Your task to perform on an android device: Go to display settings Image 0: 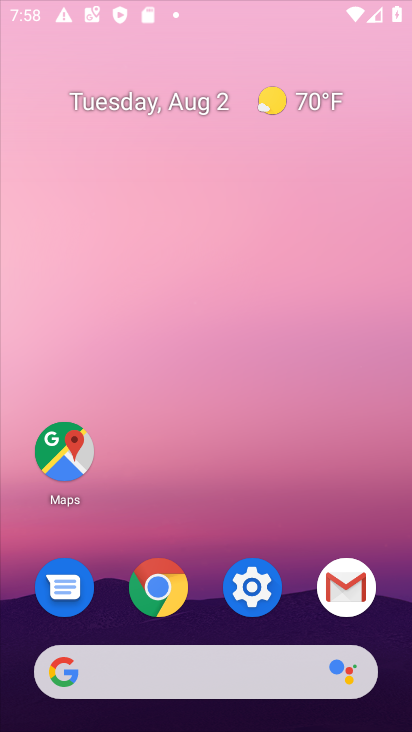
Step 0: press home button
Your task to perform on an android device: Go to display settings Image 1: 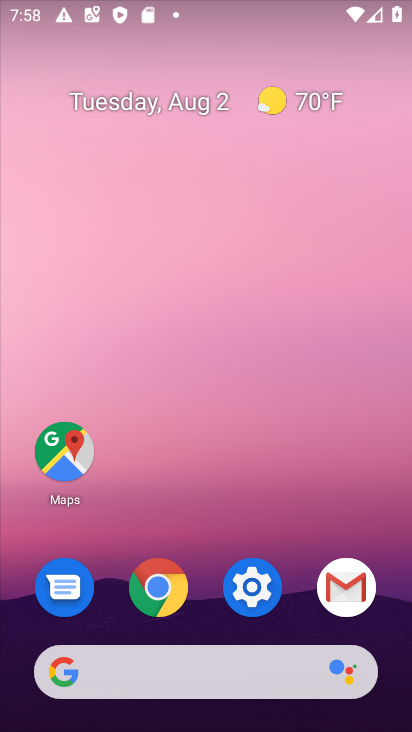
Step 1: click (248, 582)
Your task to perform on an android device: Go to display settings Image 2: 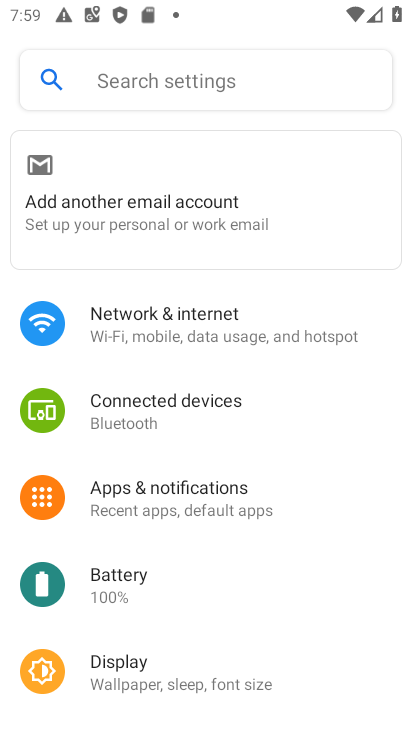
Step 2: click (160, 679)
Your task to perform on an android device: Go to display settings Image 3: 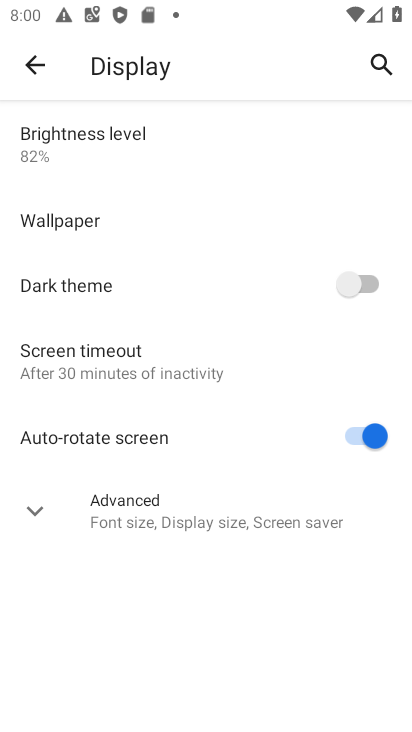
Step 3: task complete